Your task to perform on an android device: Open Wikipedia Image 0: 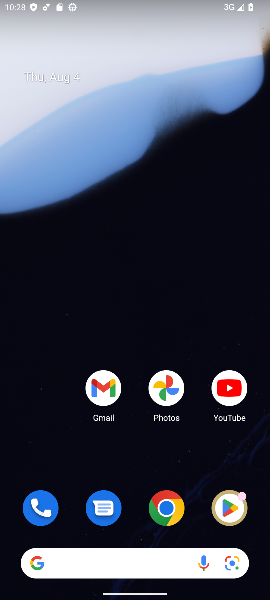
Step 0: click (168, 498)
Your task to perform on an android device: Open Wikipedia Image 1: 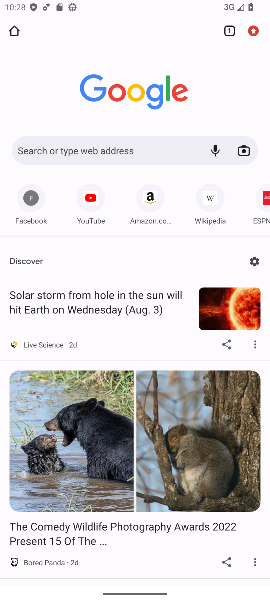
Step 1: click (205, 202)
Your task to perform on an android device: Open Wikipedia Image 2: 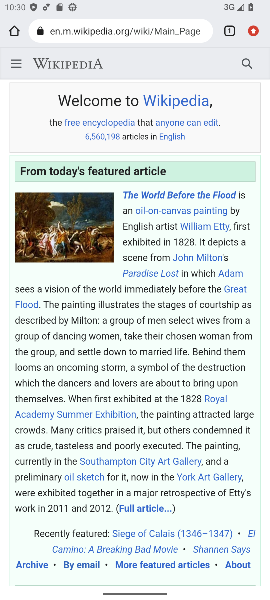
Step 2: task complete